Your task to perform on an android device: change notification settings in the gmail app Image 0: 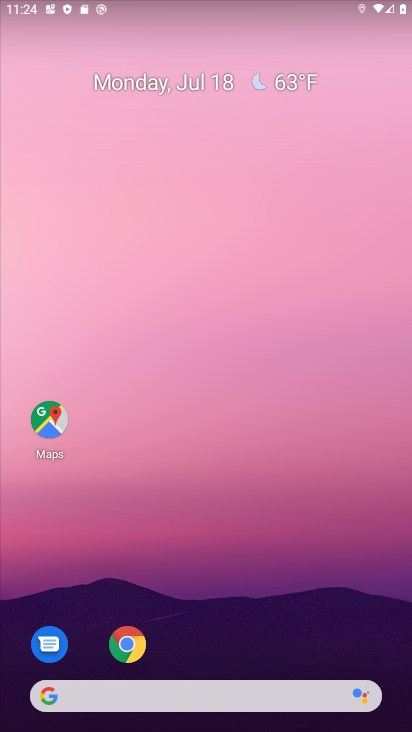
Step 0: drag from (223, 729) to (197, 118)
Your task to perform on an android device: change notification settings in the gmail app Image 1: 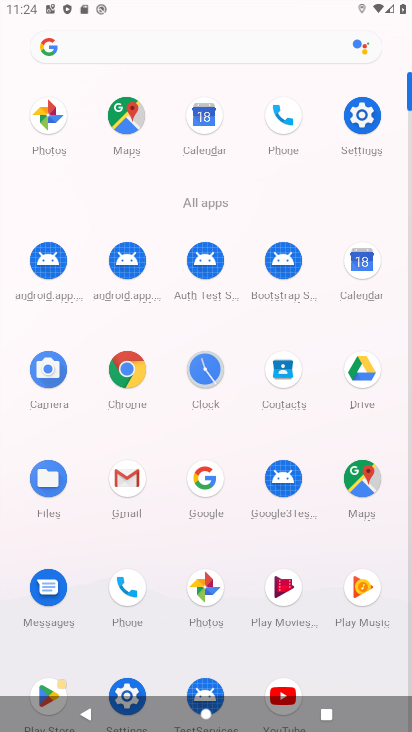
Step 1: click (126, 480)
Your task to perform on an android device: change notification settings in the gmail app Image 2: 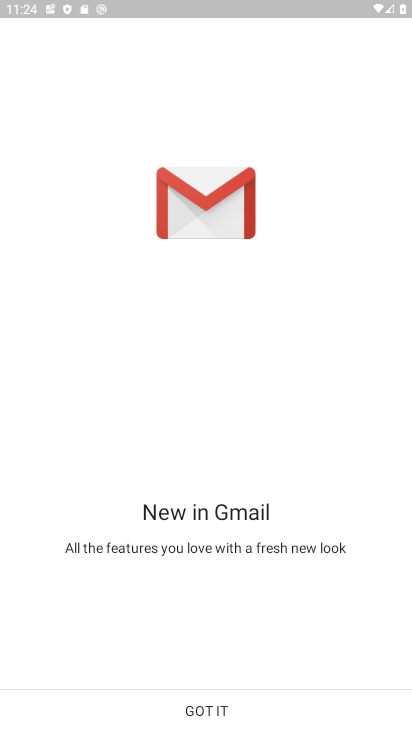
Step 2: click (208, 710)
Your task to perform on an android device: change notification settings in the gmail app Image 3: 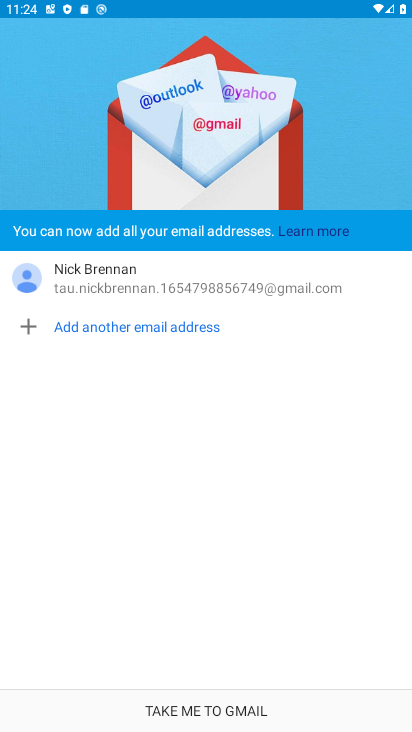
Step 3: click (211, 709)
Your task to perform on an android device: change notification settings in the gmail app Image 4: 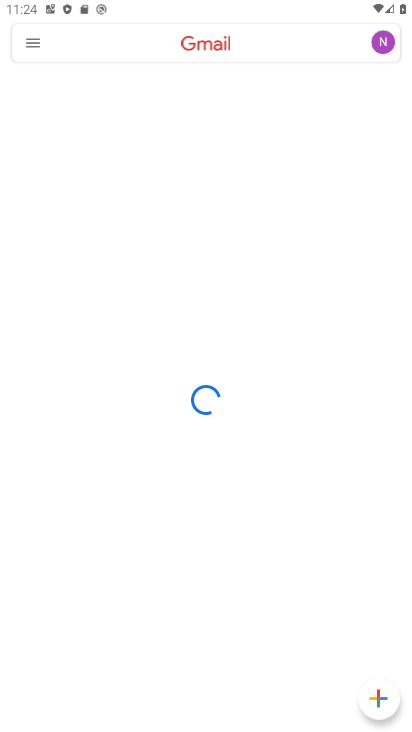
Step 4: click (32, 42)
Your task to perform on an android device: change notification settings in the gmail app Image 5: 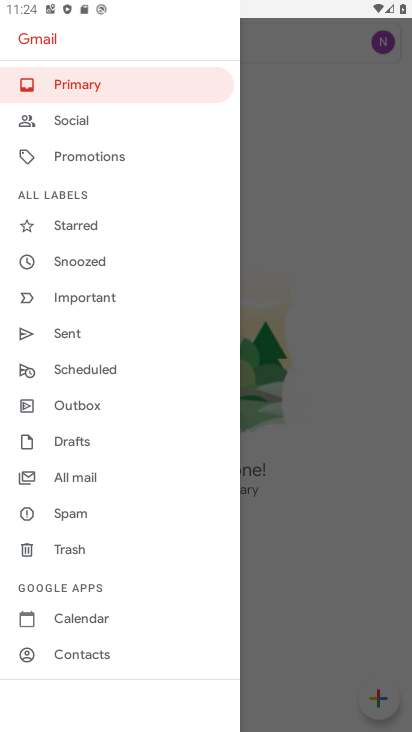
Step 5: drag from (76, 638) to (76, 358)
Your task to perform on an android device: change notification settings in the gmail app Image 6: 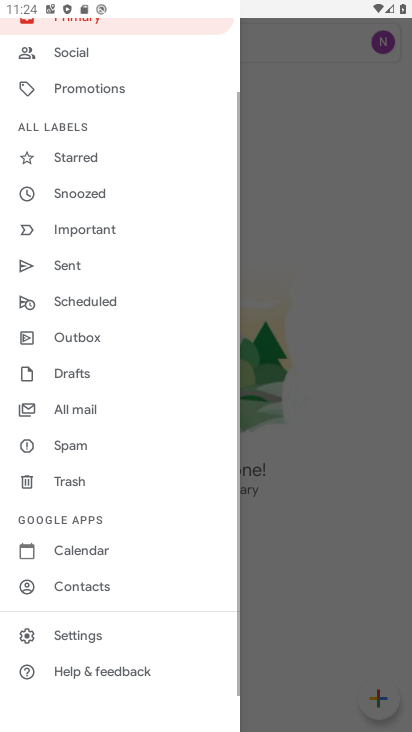
Step 6: click (79, 629)
Your task to perform on an android device: change notification settings in the gmail app Image 7: 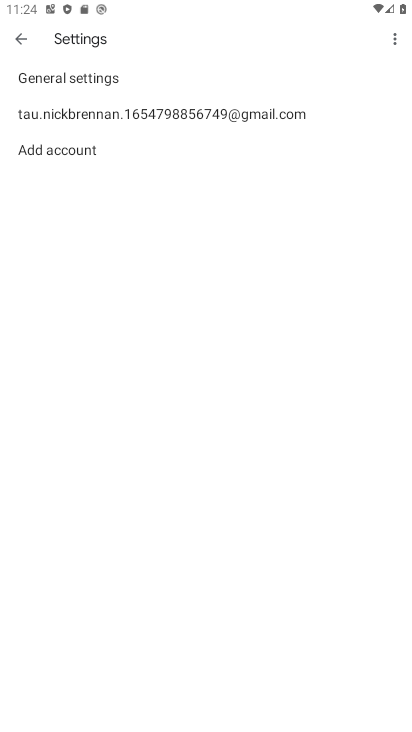
Step 7: click (95, 111)
Your task to perform on an android device: change notification settings in the gmail app Image 8: 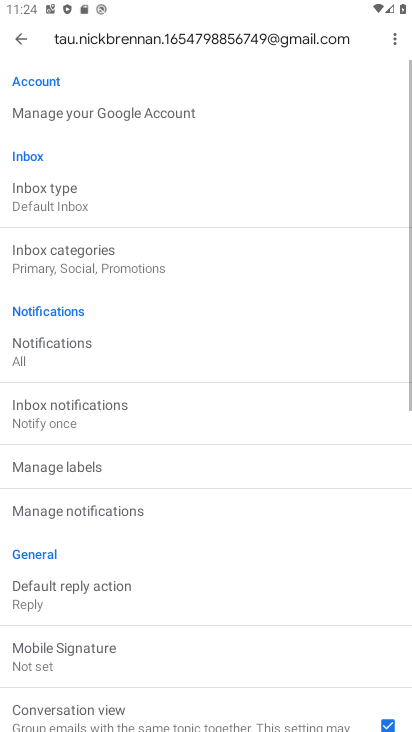
Step 8: click (20, 353)
Your task to perform on an android device: change notification settings in the gmail app Image 9: 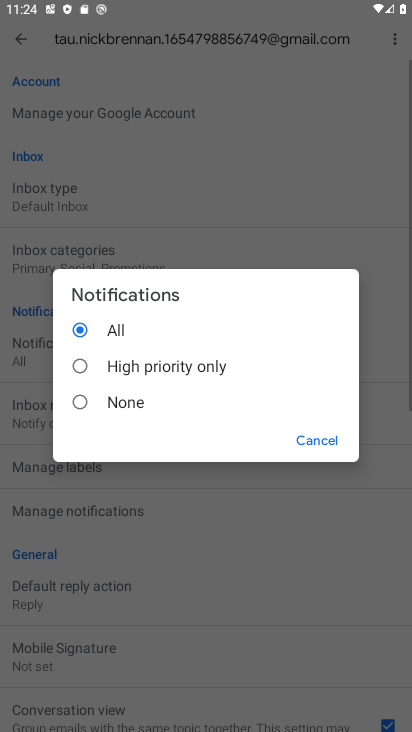
Step 9: click (79, 395)
Your task to perform on an android device: change notification settings in the gmail app Image 10: 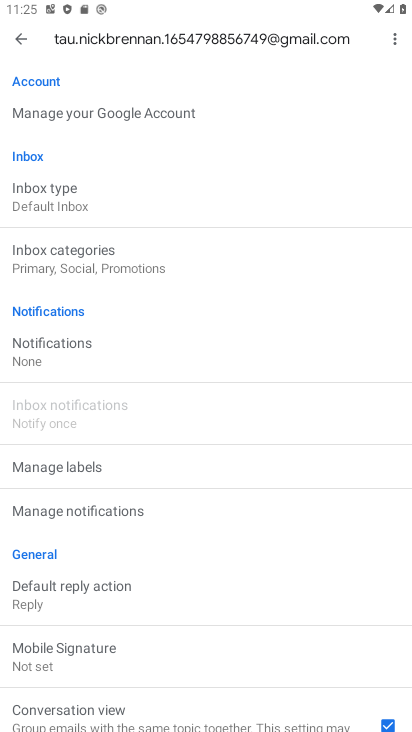
Step 10: task complete